Your task to perform on an android device: see tabs open on other devices in the chrome app Image 0: 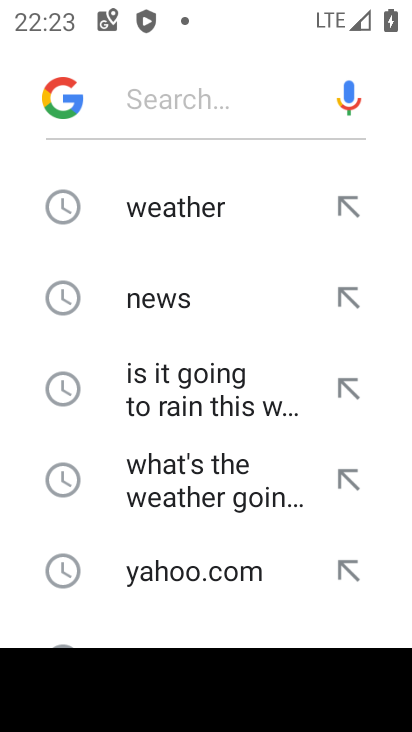
Step 0: press home button
Your task to perform on an android device: see tabs open on other devices in the chrome app Image 1: 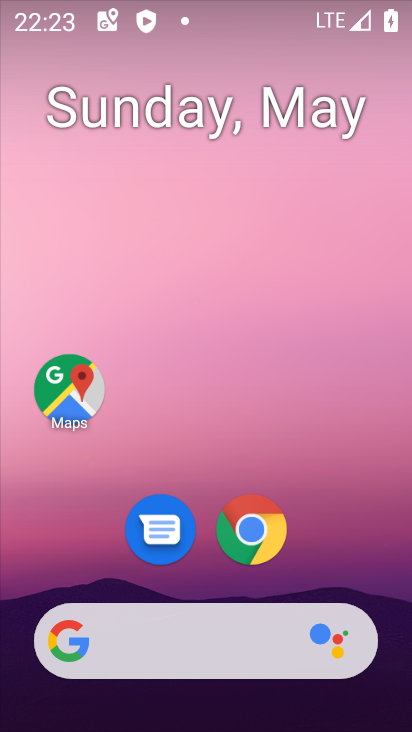
Step 1: click (276, 535)
Your task to perform on an android device: see tabs open on other devices in the chrome app Image 2: 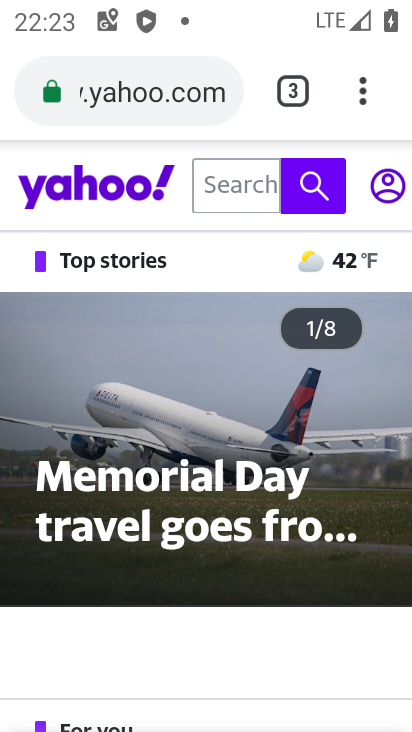
Step 2: click (376, 117)
Your task to perform on an android device: see tabs open on other devices in the chrome app Image 3: 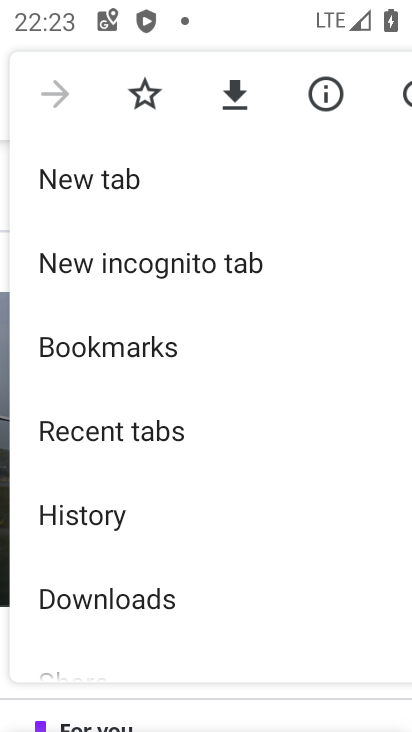
Step 3: drag from (224, 433) to (177, 128)
Your task to perform on an android device: see tabs open on other devices in the chrome app Image 4: 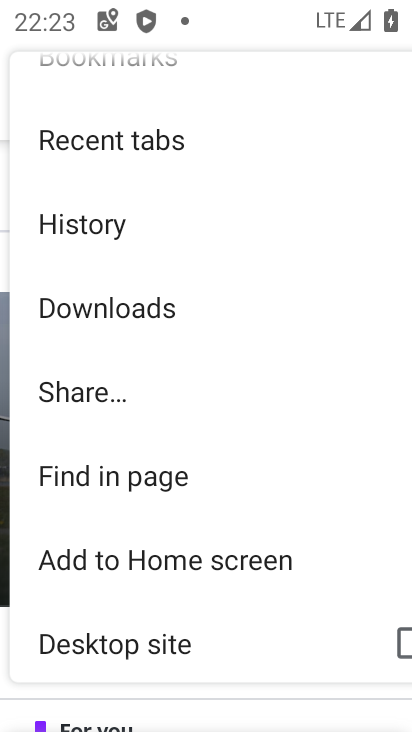
Step 4: drag from (108, 633) to (86, 208)
Your task to perform on an android device: see tabs open on other devices in the chrome app Image 5: 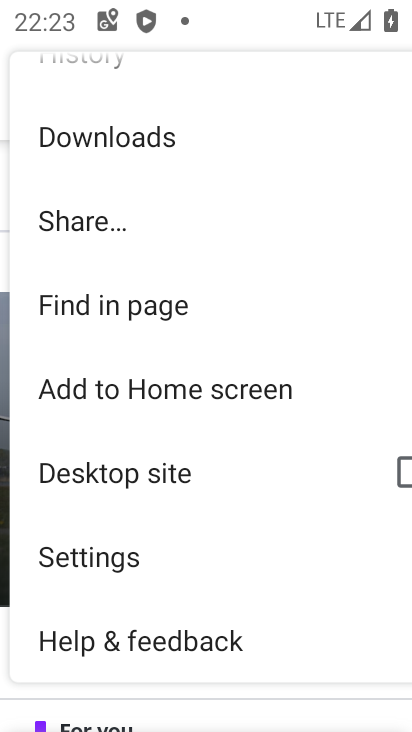
Step 5: click (75, 558)
Your task to perform on an android device: see tabs open on other devices in the chrome app Image 6: 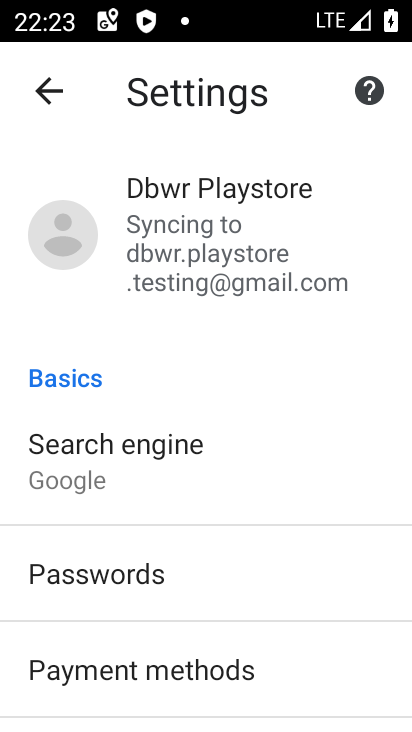
Step 6: task complete